Your task to perform on an android device: turn off smart reply in the gmail app Image 0: 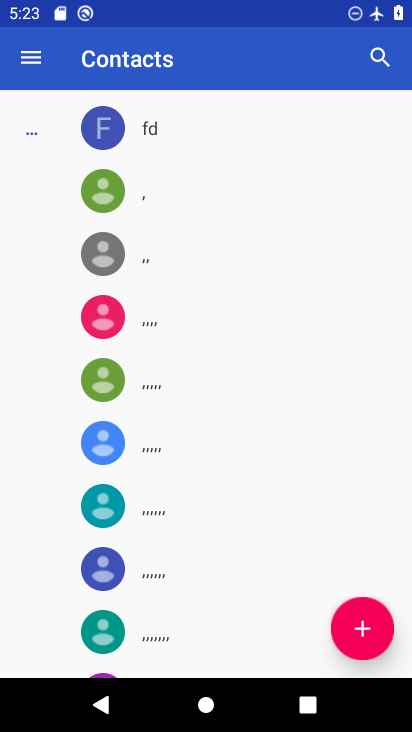
Step 0: press home button
Your task to perform on an android device: turn off smart reply in the gmail app Image 1: 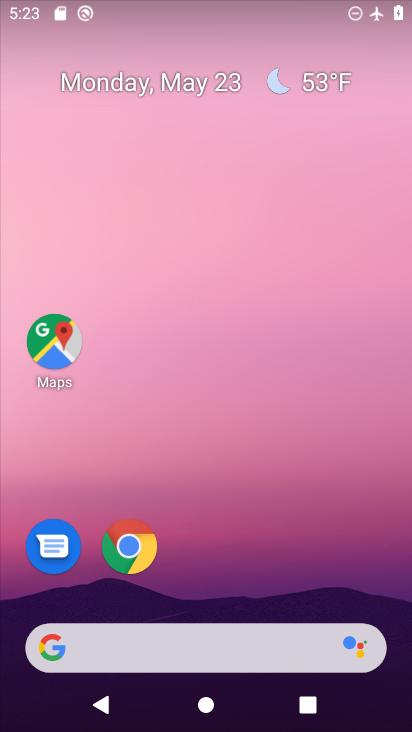
Step 1: drag from (255, 593) to (250, 55)
Your task to perform on an android device: turn off smart reply in the gmail app Image 2: 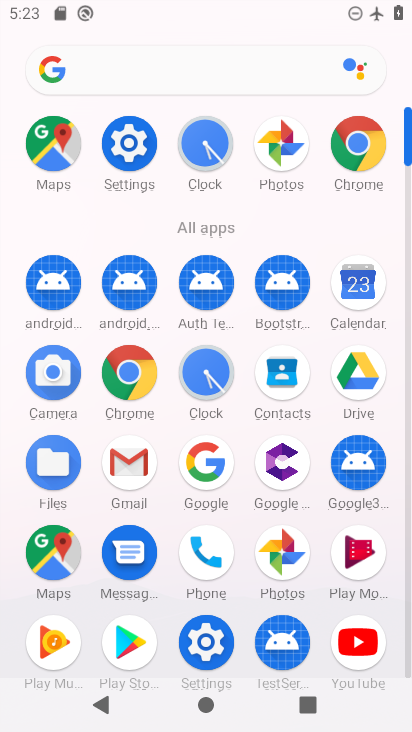
Step 2: click (131, 468)
Your task to perform on an android device: turn off smart reply in the gmail app Image 3: 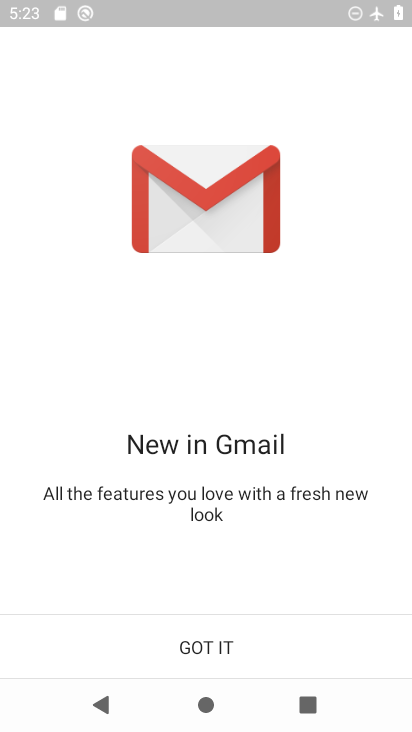
Step 3: click (219, 648)
Your task to perform on an android device: turn off smart reply in the gmail app Image 4: 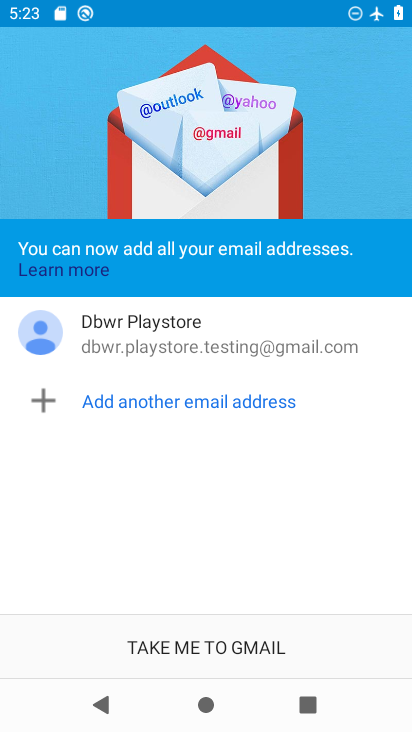
Step 4: click (227, 639)
Your task to perform on an android device: turn off smart reply in the gmail app Image 5: 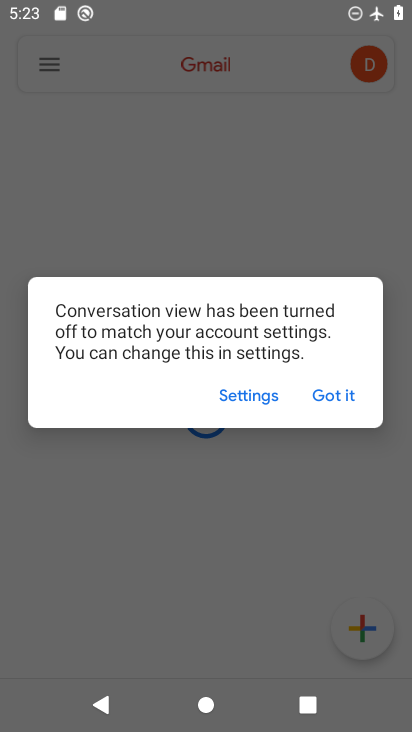
Step 5: click (344, 397)
Your task to perform on an android device: turn off smart reply in the gmail app Image 6: 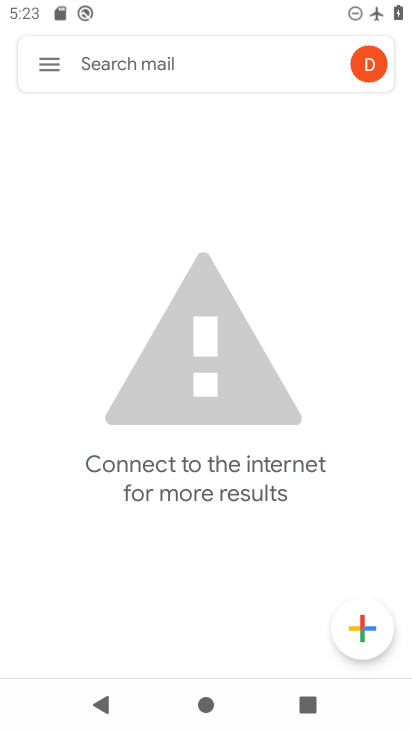
Step 6: click (50, 61)
Your task to perform on an android device: turn off smart reply in the gmail app Image 7: 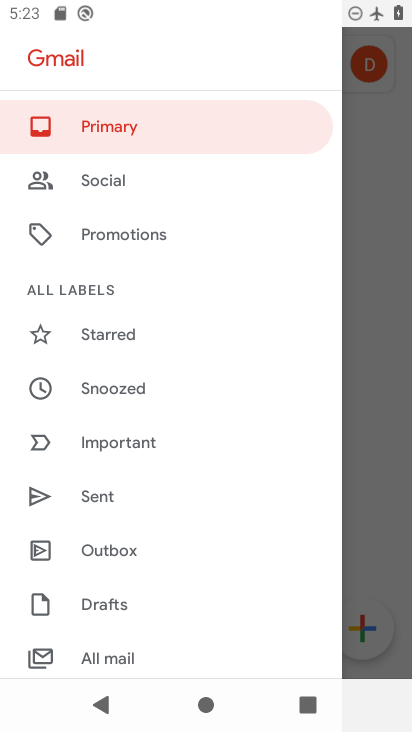
Step 7: drag from (171, 650) to (186, 221)
Your task to perform on an android device: turn off smart reply in the gmail app Image 8: 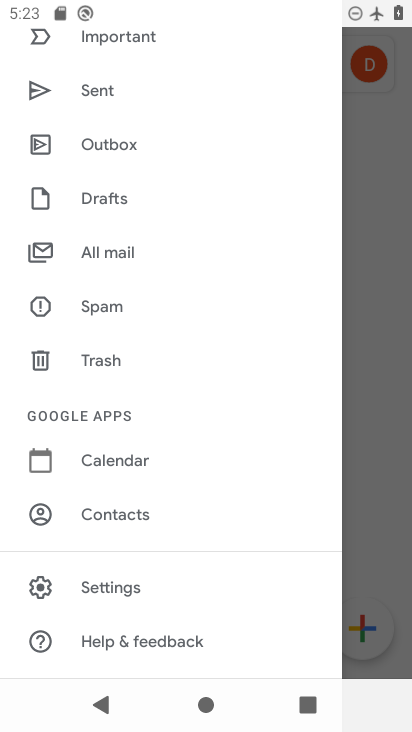
Step 8: click (147, 585)
Your task to perform on an android device: turn off smart reply in the gmail app Image 9: 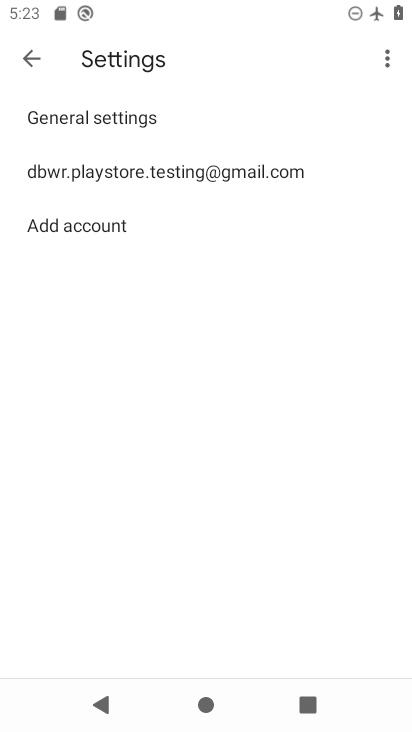
Step 9: click (168, 170)
Your task to perform on an android device: turn off smart reply in the gmail app Image 10: 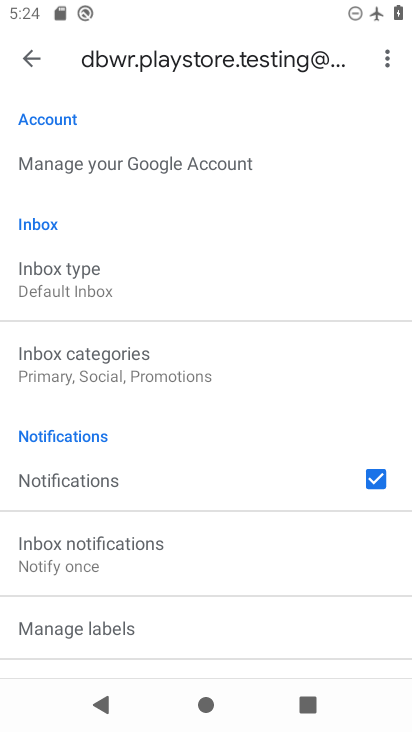
Step 10: drag from (223, 598) to (235, 143)
Your task to perform on an android device: turn off smart reply in the gmail app Image 11: 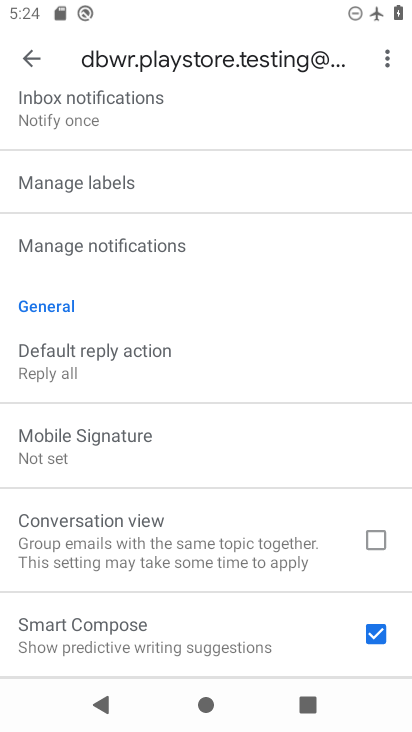
Step 11: drag from (242, 592) to (238, 205)
Your task to perform on an android device: turn off smart reply in the gmail app Image 12: 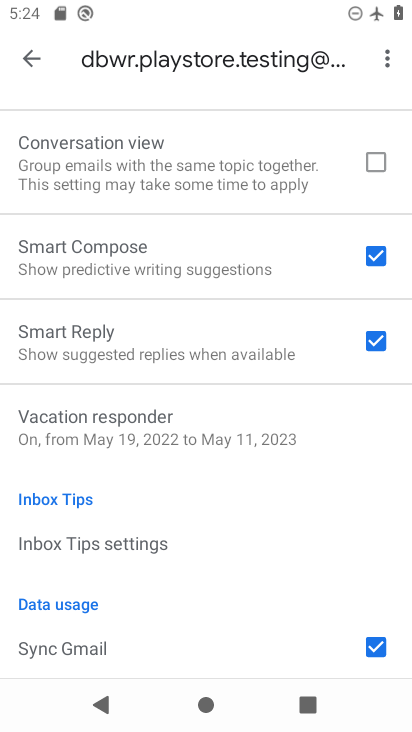
Step 12: drag from (213, 633) to (214, 248)
Your task to perform on an android device: turn off smart reply in the gmail app Image 13: 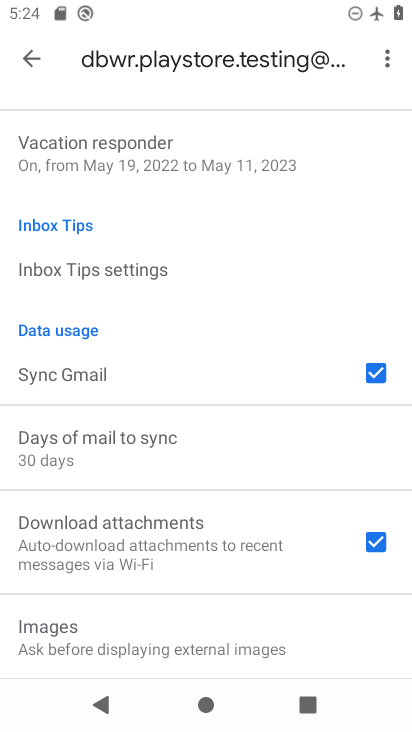
Step 13: drag from (246, 626) to (220, 155)
Your task to perform on an android device: turn off smart reply in the gmail app Image 14: 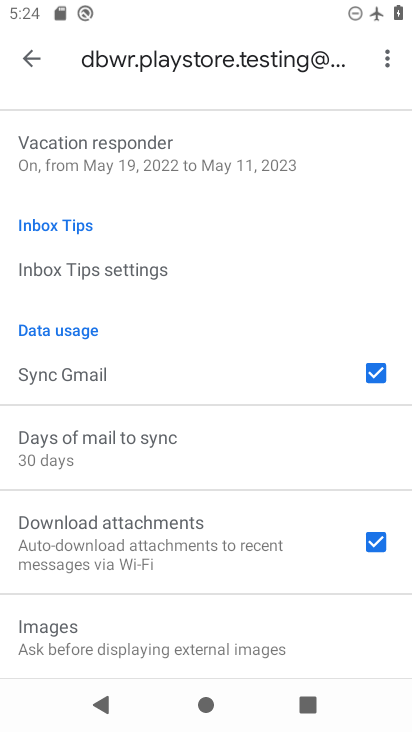
Step 14: drag from (220, 155) to (220, 561)
Your task to perform on an android device: turn off smart reply in the gmail app Image 15: 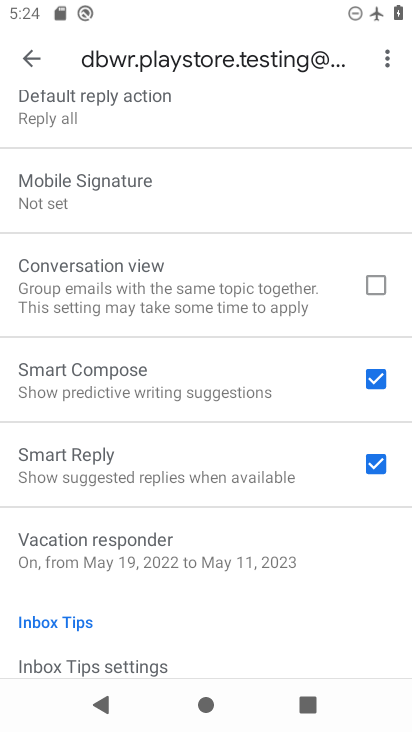
Step 15: click (375, 383)
Your task to perform on an android device: turn off smart reply in the gmail app Image 16: 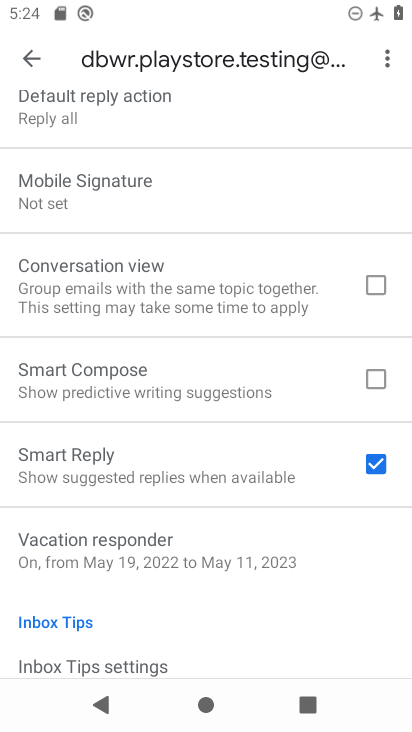
Step 16: task complete